Your task to perform on an android device: Go to Wikipedia Image 0: 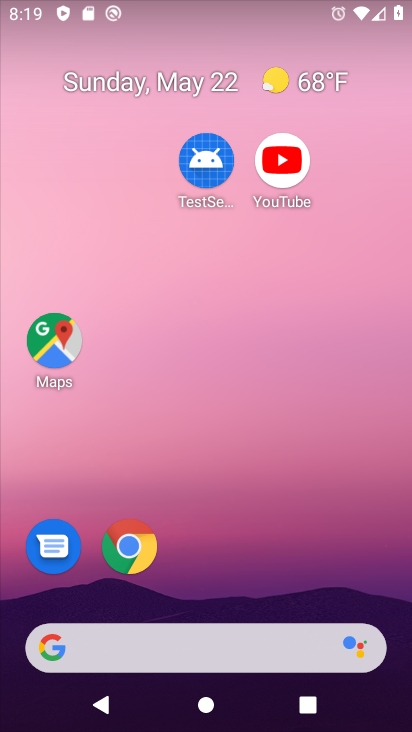
Step 0: drag from (248, 629) to (203, 229)
Your task to perform on an android device: Go to Wikipedia Image 1: 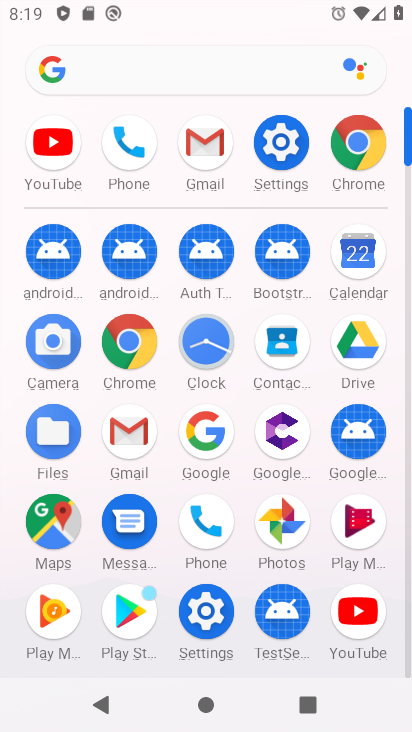
Step 1: click (343, 155)
Your task to perform on an android device: Go to Wikipedia Image 2: 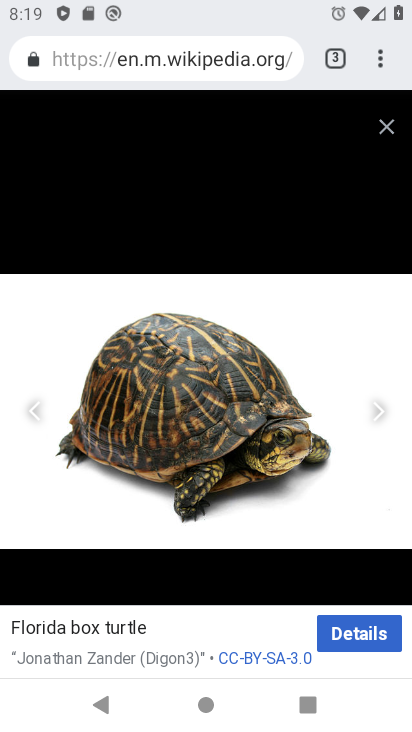
Step 2: drag from (380, 53) to (174, 118)
Your task to perform on an android device: Go to Wikipedia Image 3: 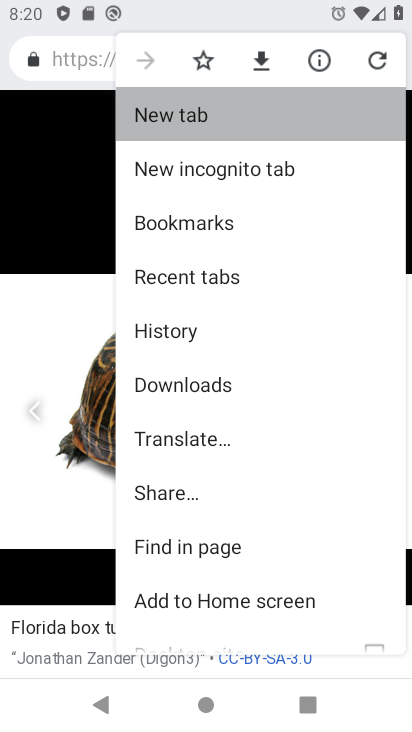
Step 3: click (173, 118)
Your task to perform on an android device: Go to Wikipedia Image 4: 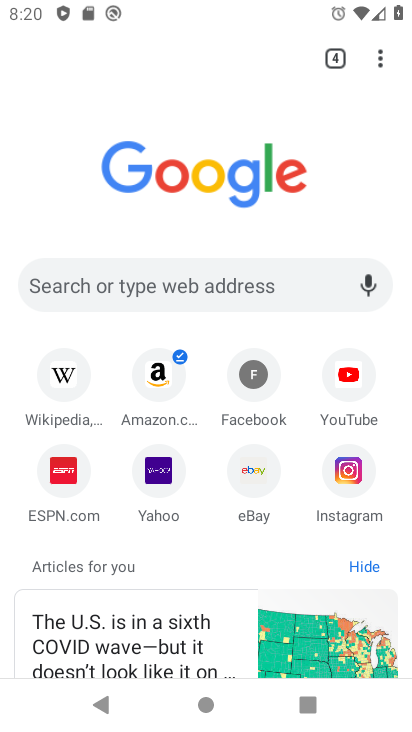
Step 4: click (72, 375)
Your task to perform on an android device: Go to Wikipedia Image 5: 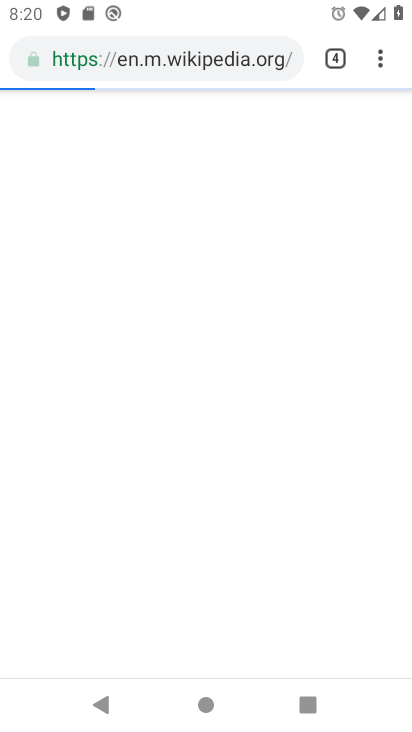
Step 5: click (63, 376)
Your task to perform on an android device: Go to Wikipedia Image 6: 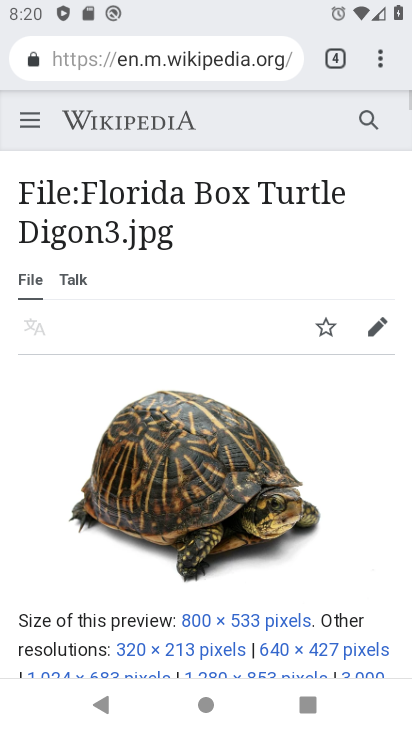
Step 6: task complete